Your task to perform on an android device: turn off javascript in the chrome app Image 0: 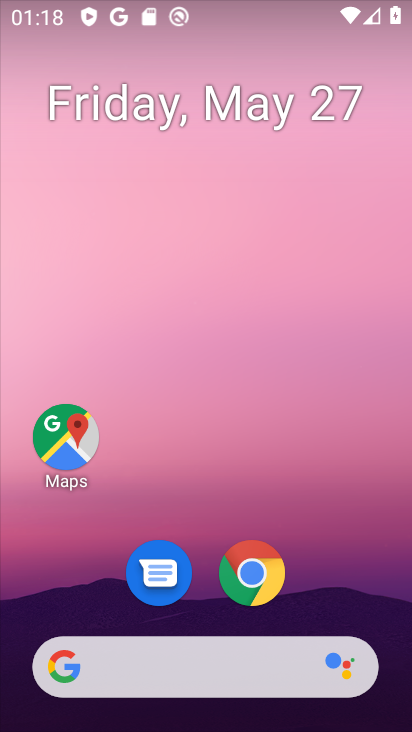
Step 0: click (254, 576)
Your task to perform on an android device: turn off javascript in the chrome app Image 1: 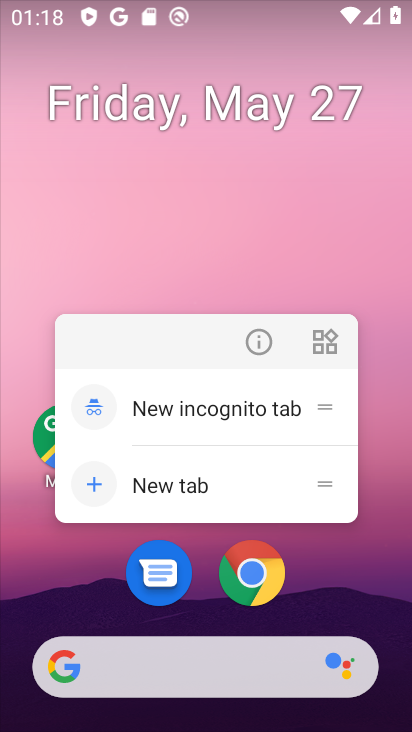
Step 1: click (254, 575)
Your task to perform on an android device: turn off javascript in the chrome app Image 2: 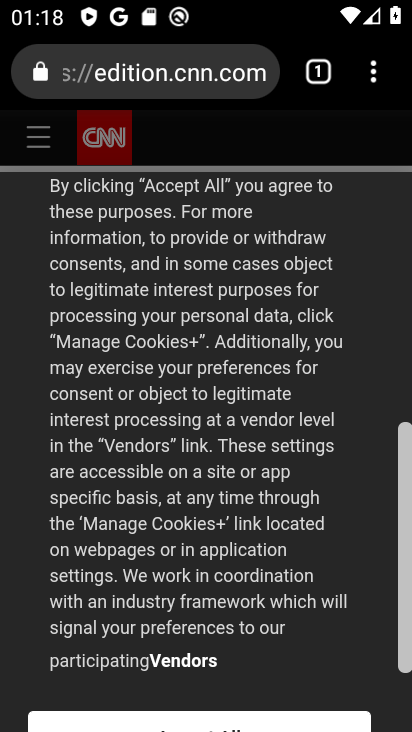
Step 2: click (371, 66)
Your task to perform on an android device: turn off javascript in the chrome app Image 3: 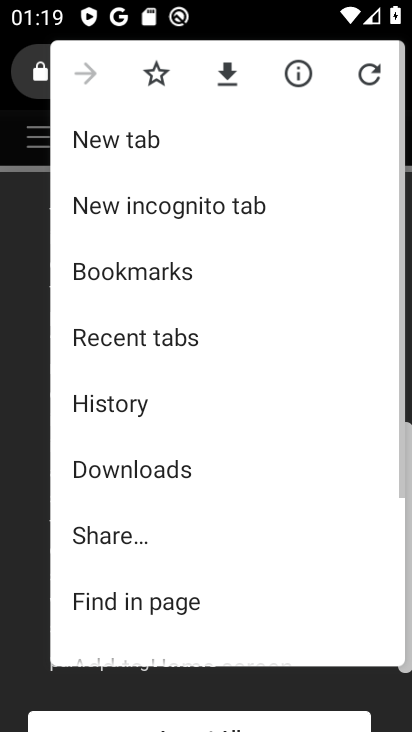
Step 3: drag from (177, 518) to (162, 61)
Your task to perform on an android device: turn off javascript in the chrome app Image 4: 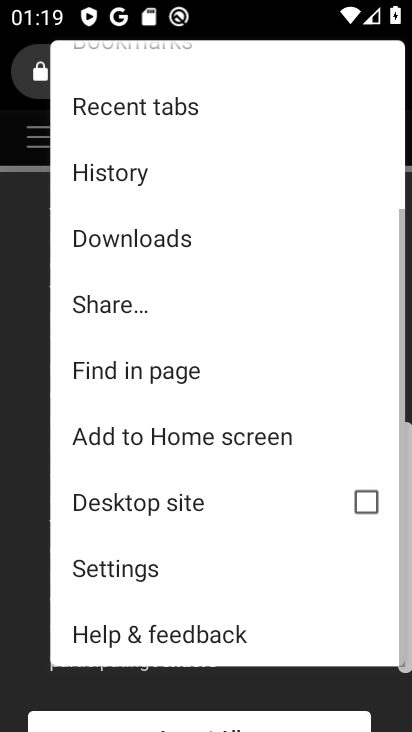
Step 4: click (114, 581)
Your task to perform on an android device: turn off javascript in the chrome app Image 5: 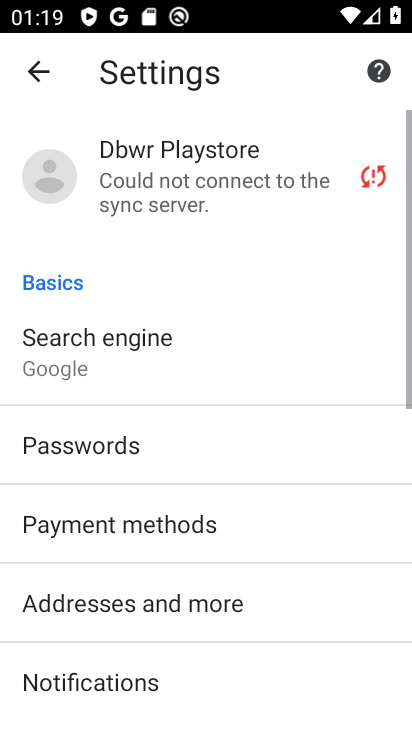
Step 5: drag from (203, 597) to (187, 297)
Your task to perform on an android device: turn off javascript in the chrome app Image 6: 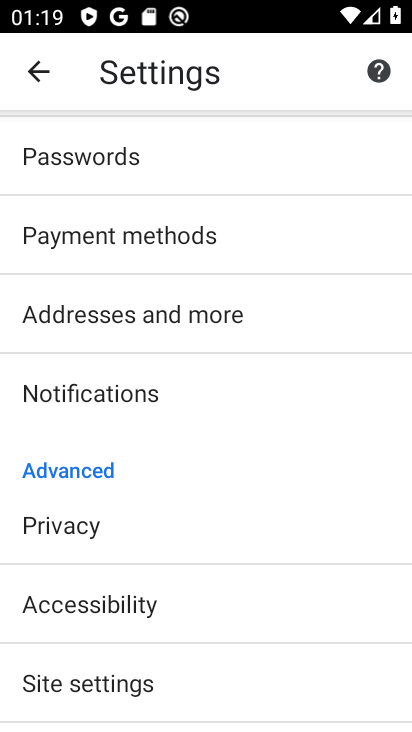
Step 6: drag from (104, 672) to (50, 194)
Your task to perform on an android device: turn off javascript in the chrome app Image 7: 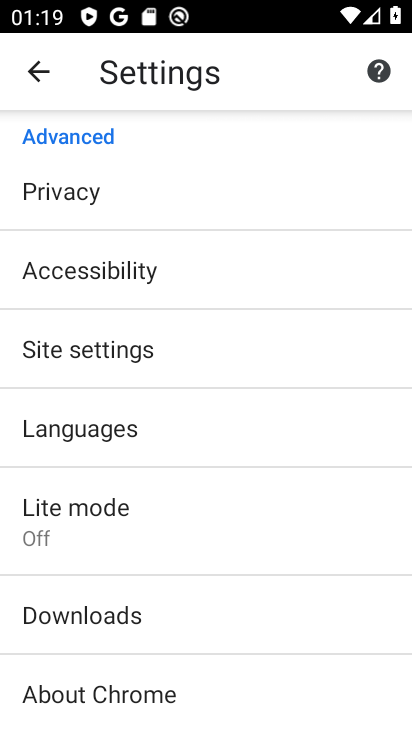
Step 7: click (92, 336)
Your task to perform on an android device: turn off javascript in the chrome app Image 8: 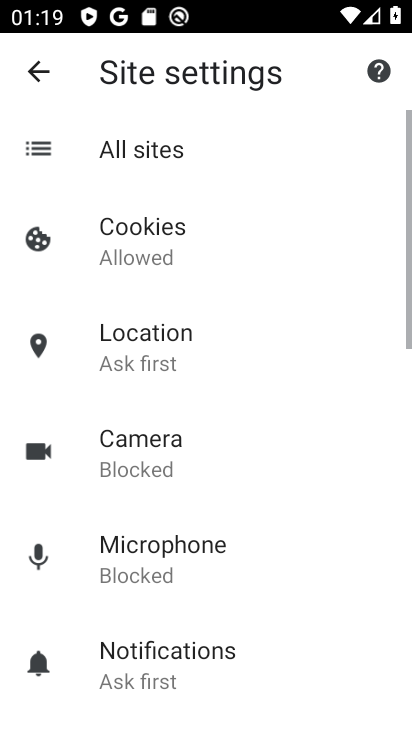
Step 8: drag from (186, 554) to (117, 175)
Your task to perform on an android device: turn off javascript in the chrome app Image 9: 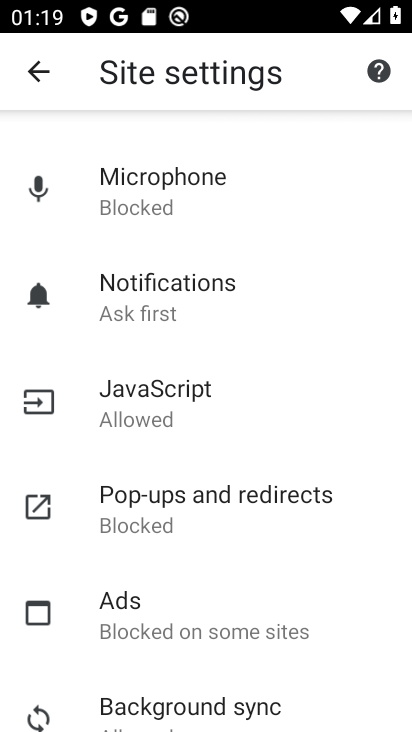
Step 9: click (117, 408)
Your task to perform on an android device: turn off javascript in the chrome app Image 10: 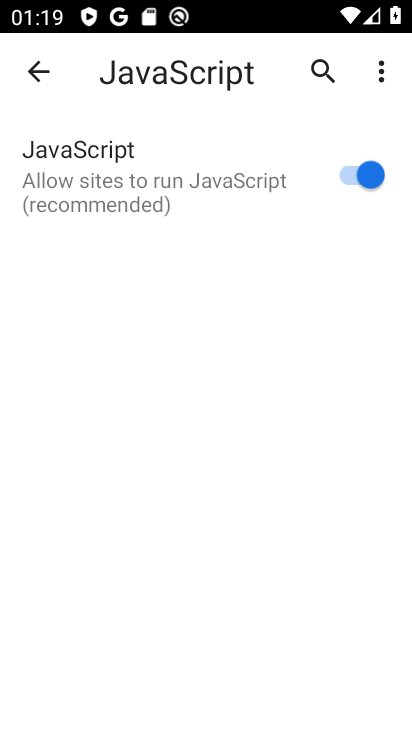
Step 10: click (373, 176)
Your task to perform on an android device: turn off javascript in the chrome app Image 11: 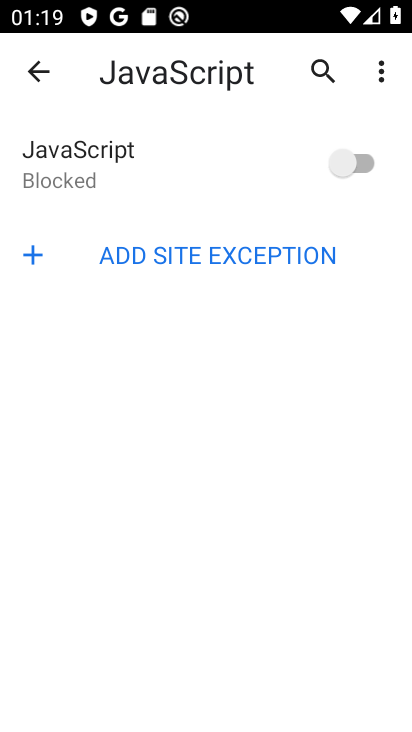
Step 11: task complete